Your task to perform on an android device: What's the weather going to be tomorrow? Image 0: 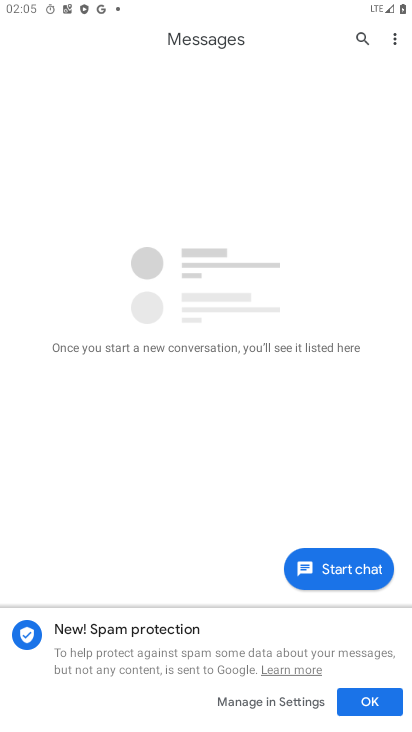
Step 0: press home button
Your task to perform on an android device: What's the weather going to be tomorrow? Image 1: 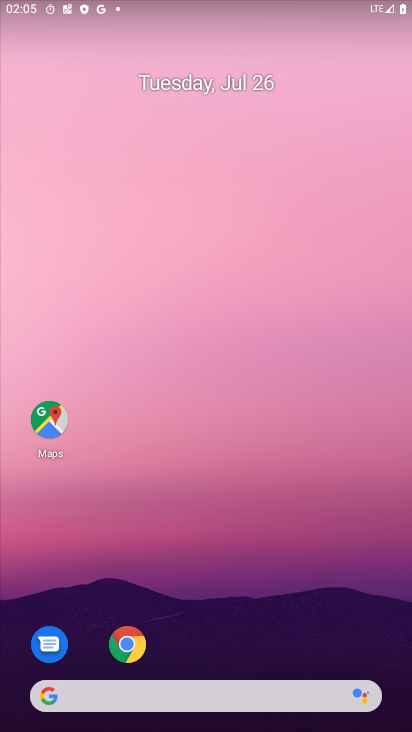
Step 1: click (145, 695)
Your task to perform on an android device: What's the weather going to be tomorrow? Image 2: 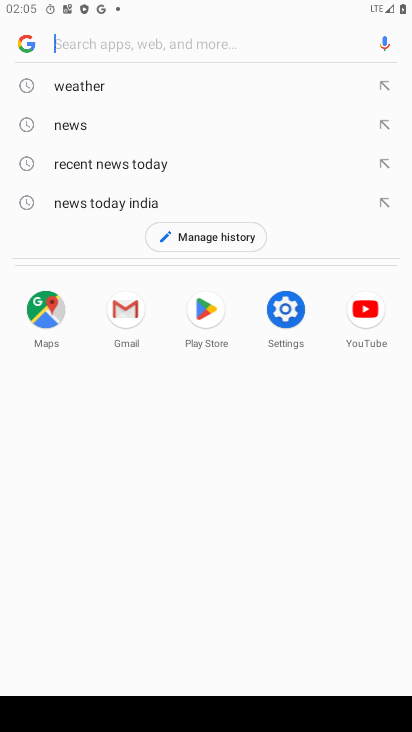
Step 2: click (82, 92)
Your task to perform on an android device: What's the weather going to be tomorrow? Image 3: 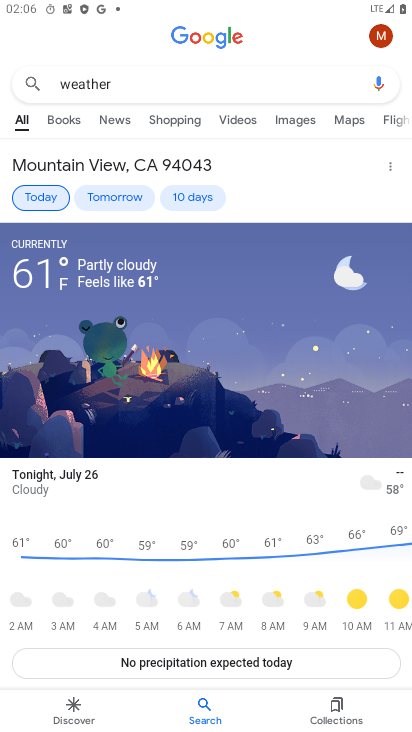
Step 3: click (106, 206)
Your task to perform on an android device: What's the weather going to be tomorrow? Image 4: 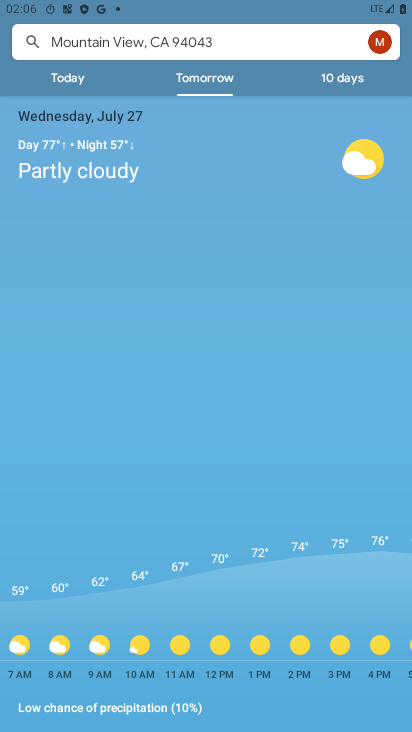
Step 4: task complete